Your task to perform on an android device: Open maps Image 0: 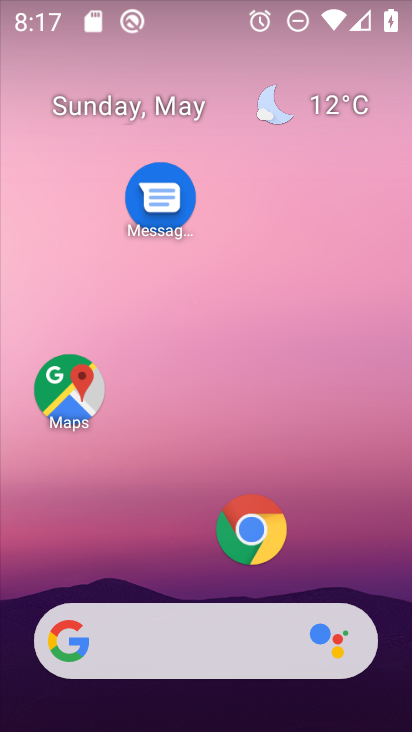
Step 0: click (73, 388)
Your task to perform on an android device: Open maps Image 1: 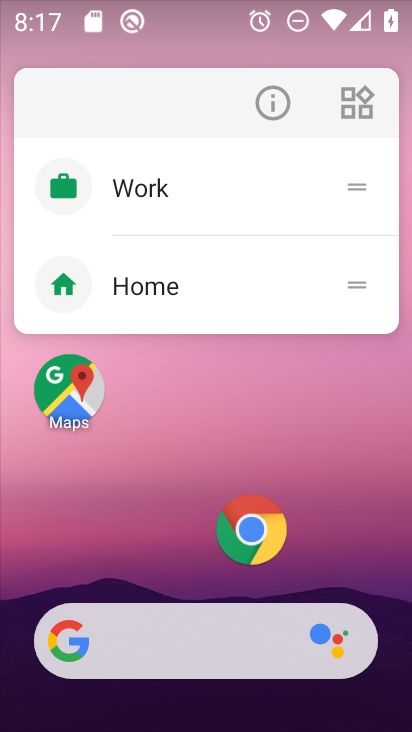
Step 1: click (70, 393)
Your task to perform on an android device: Open maps Image 2: 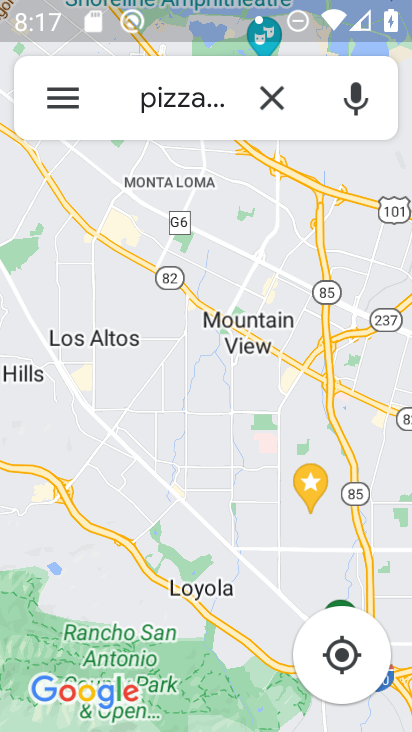
Step 2: click (273, 109)
Your task to perform on an android device: Open maps Image 3: 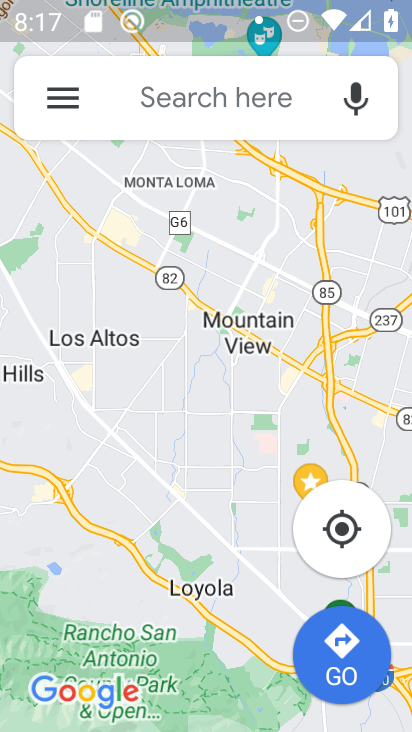
Step 3: click (63, 98)
Your task to perform on an android device: Open maps Image 4: 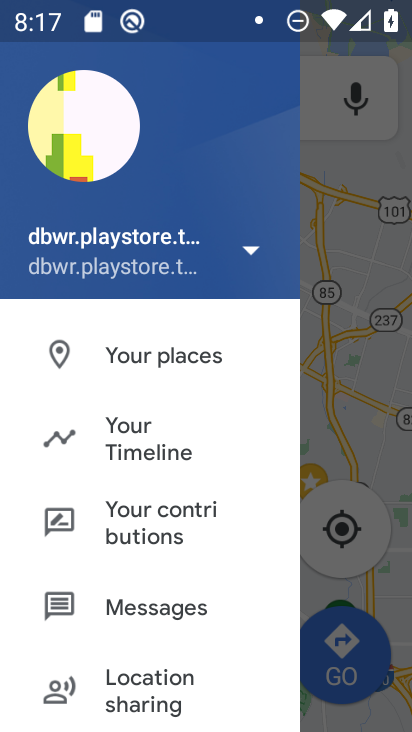
Step 4: task complete